Your task to perform on an android device: see sites visited before in the chrome app Image 0: 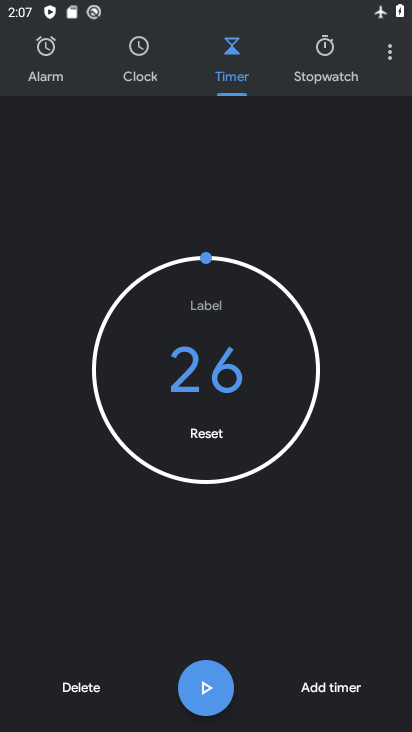
Step 0: click (289, 488)
Your task to perform on an android device: see sites visited before in the chrome app Image 1: 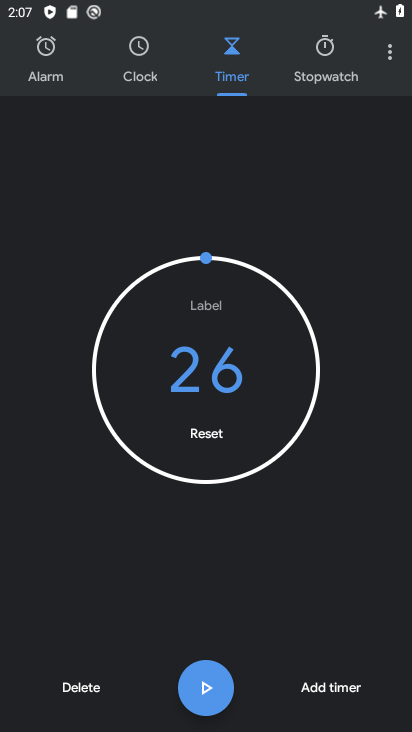
Step 1: press home button
Your task to perform on an android device: see sites visited before in the chrome app Image 2: 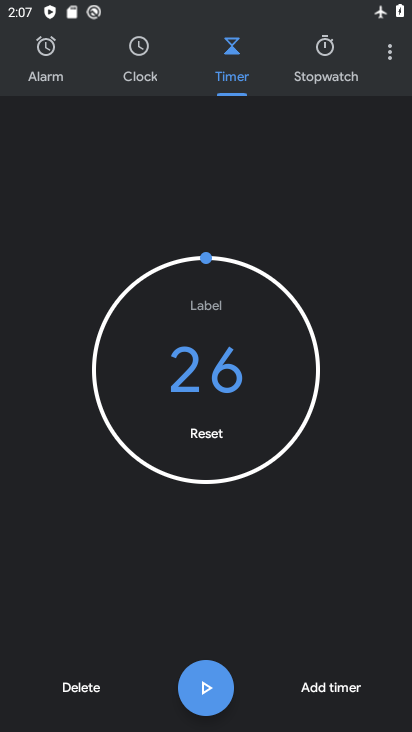
Step 2: press home button
Your task to perform on an android device: see sites visited before in the chrome app Image 3: 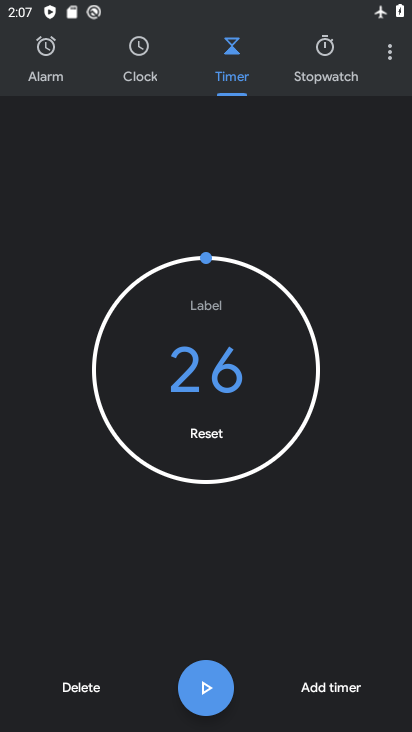
Step 3: drag from (285, 249) to (304, 136)
Your task to perform on an android device: see sites visited before in the chrome app Image 4: 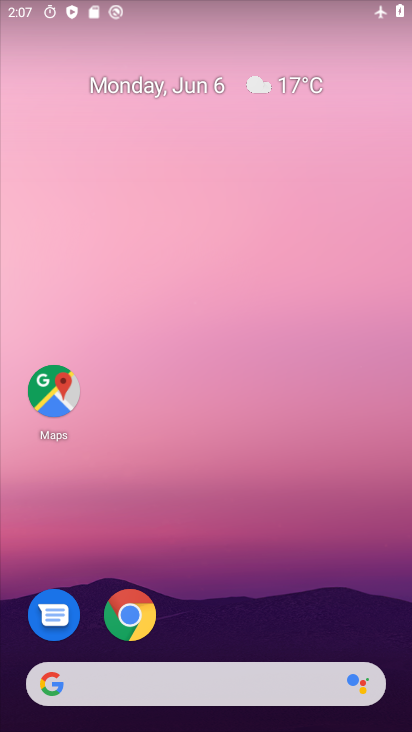
Step 4: click (124, 627)
Your task to perform on an android device: see sites visited before in the chrome app Image 5: 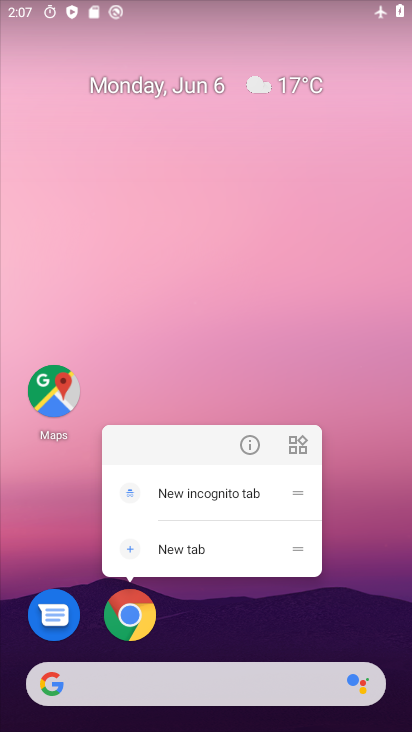
Step 5: click (260, 442)
Your task to perform on an android device: see sites visited before in the chrome app Image 6: 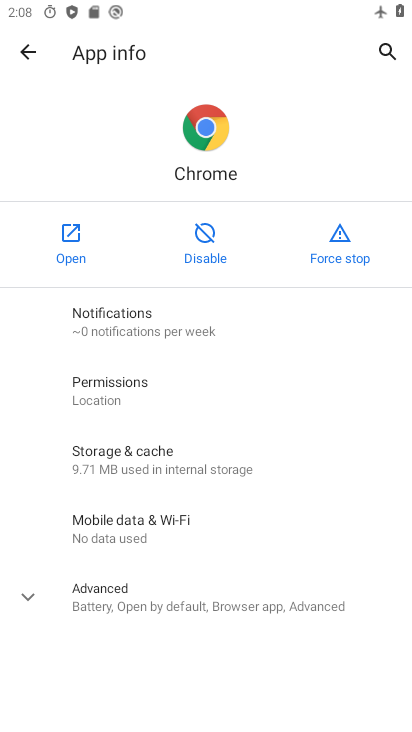
Step 6: click (56, 228)
Your task to perform on an android device: see sites visited before in the chrome app Image 7: 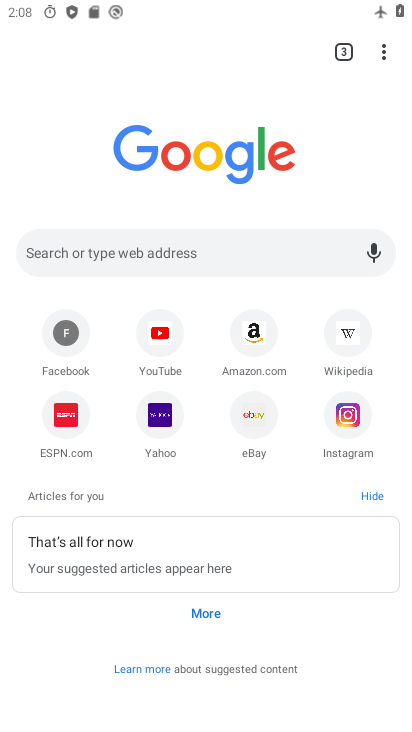
Step 7: task complete